Your task to perform on an android device: Open the web browser Image 0: 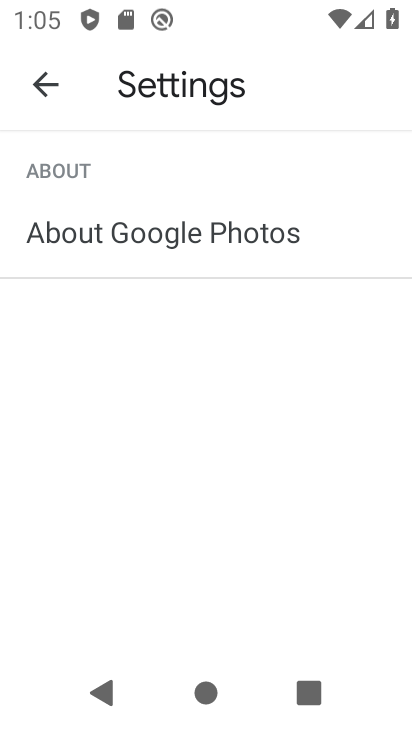
Step 0: press home button
Your task to perform on an android device: Open the web browser Image 1: 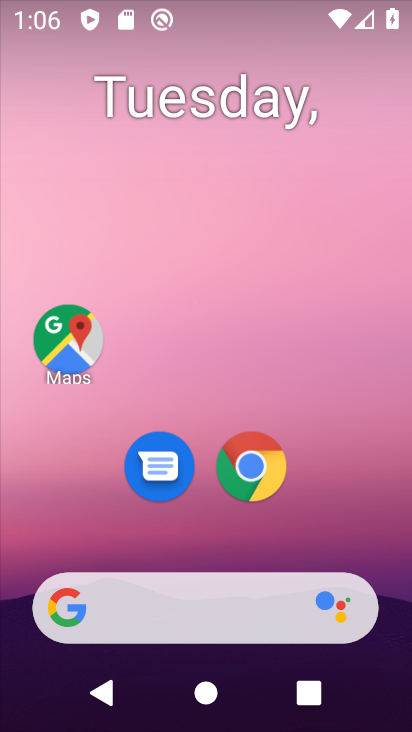
Step 1: click (266, 452)
Your task to perform on an android device: Open the web browser Image 2: 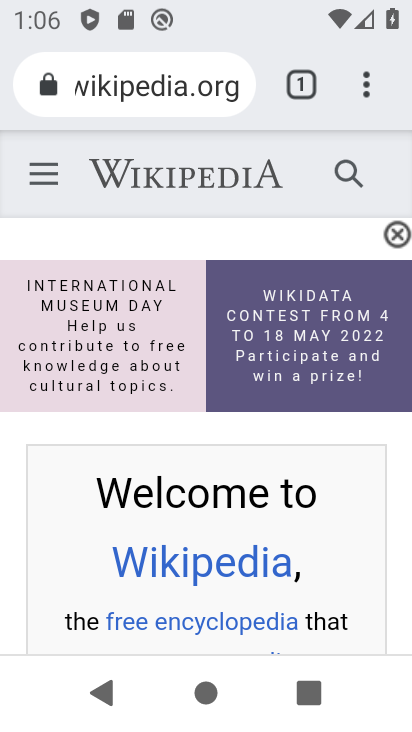
Step 2: task complete